Your task to perform on an android device: delete the emails in spam in the gmail app Image 0: 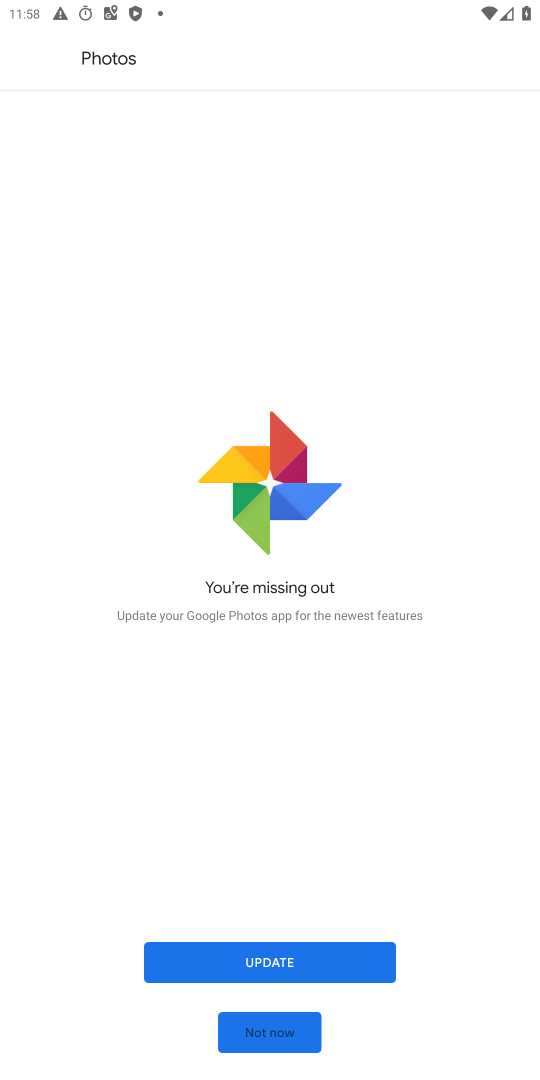
Step 0: press back button
Your task to perform on an android device: delete the emails in spam in the gmail app Image 1: 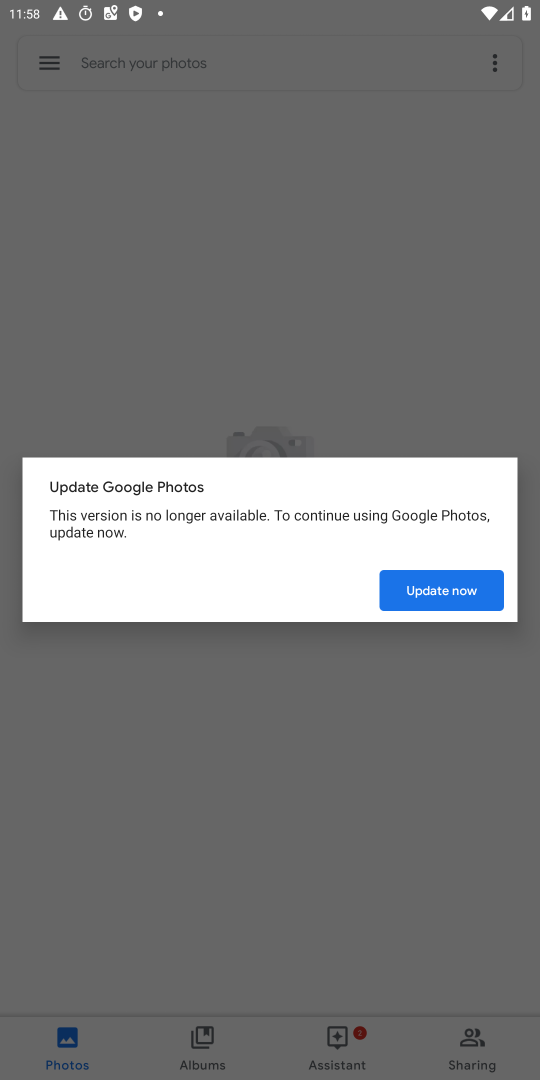
Step 1: press home button
Your task to perform on an android device: delete the emails in spam in the gmail app Image 2: 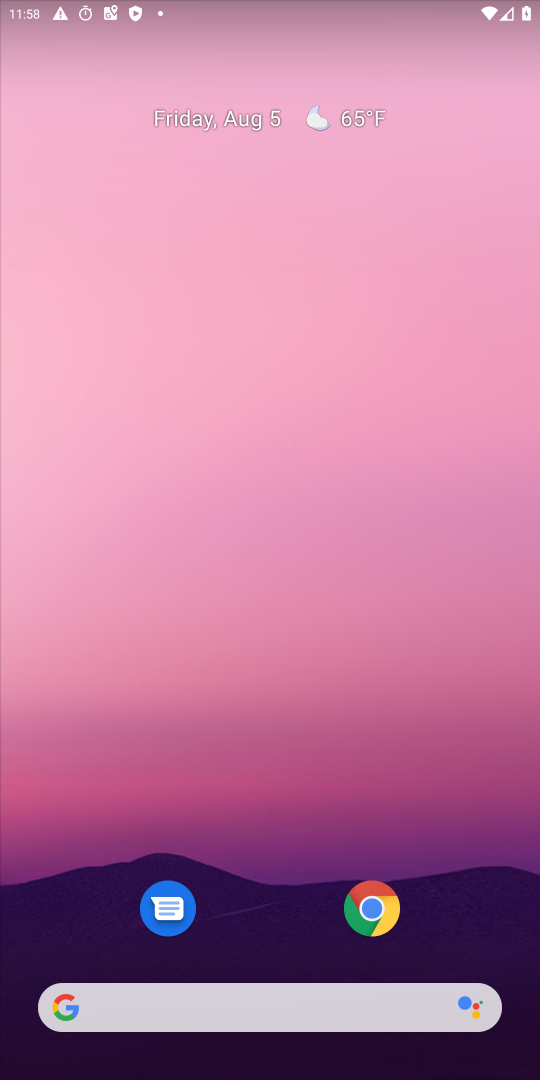
Step 2: drag from (34, 1063) to (188, 639)
Your task to perform on an android device: delete the emails in spam in the gmail app Image 3: 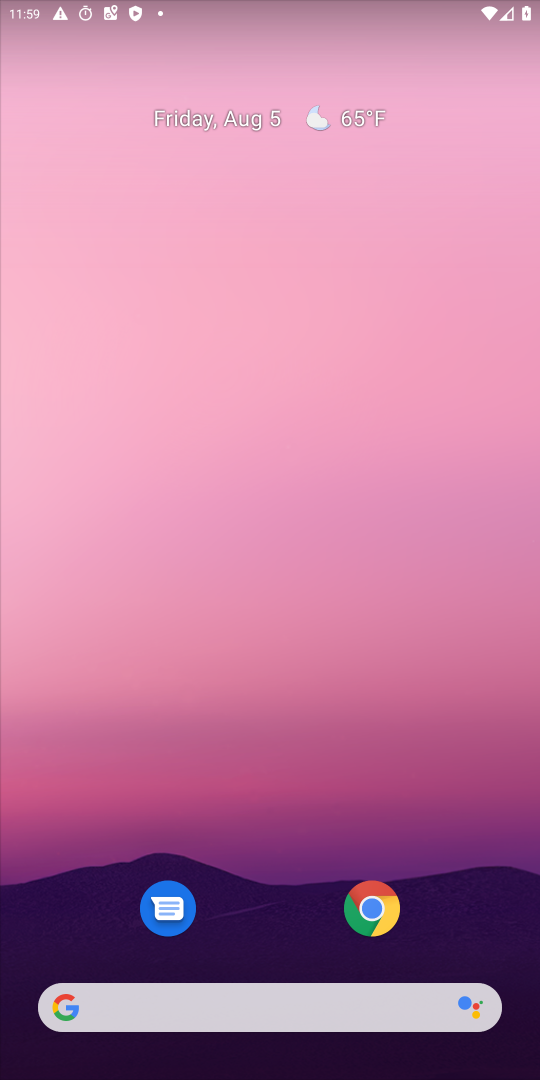
Step 3: drag from (20, 999) to (174, 595)
Your task to perform on an android device: delete the emails in spam in the gmail app Image 4: 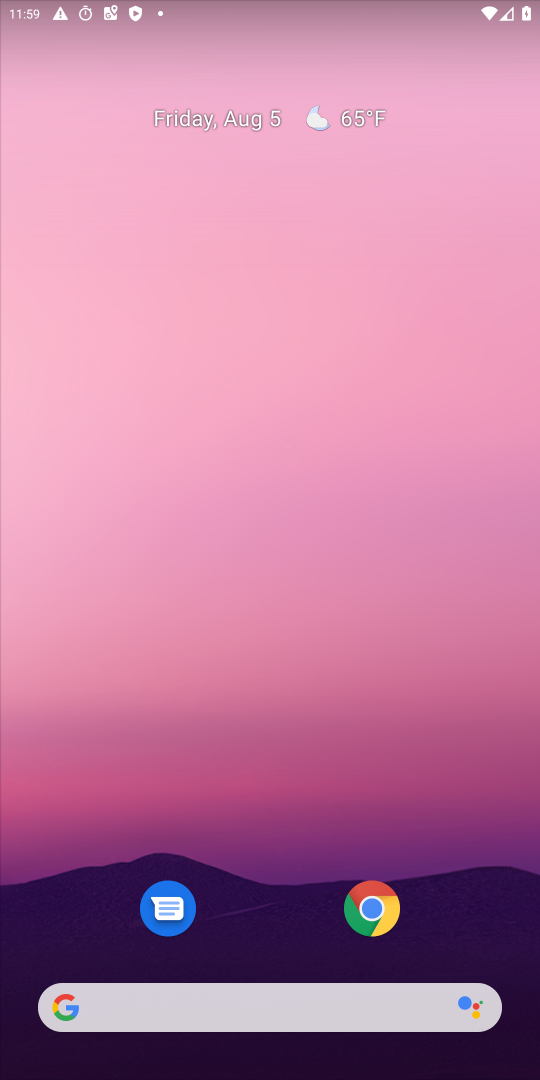
Step 4: drag from (36, 954) to (179, 415)
Your task to perform on an android device: delete the emails in spam in the gmail app Image 5: 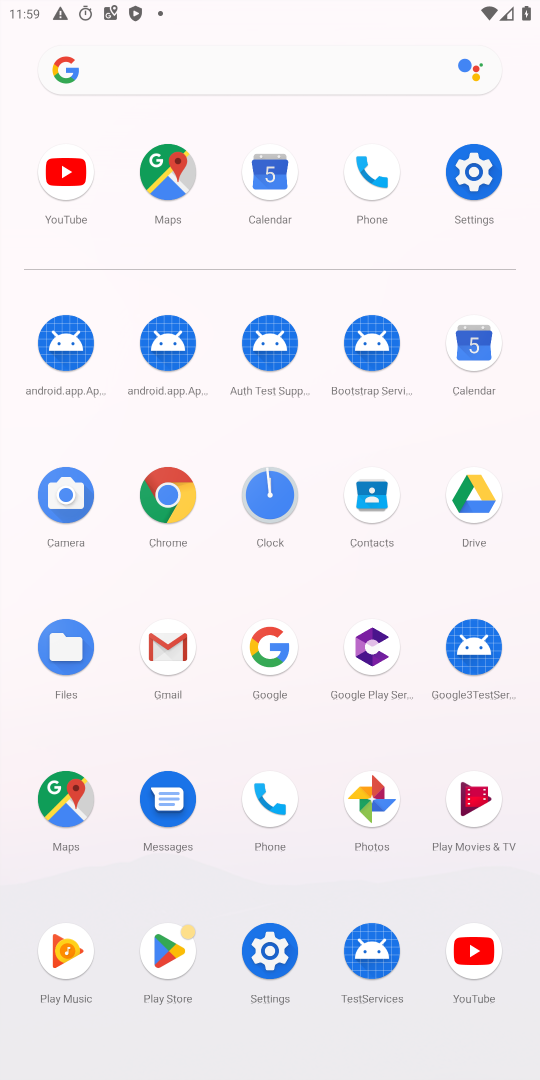
Step 5: click (163, 634)
Your task to perform on an android device: delete the emails in spam in the gmail app Image 6: 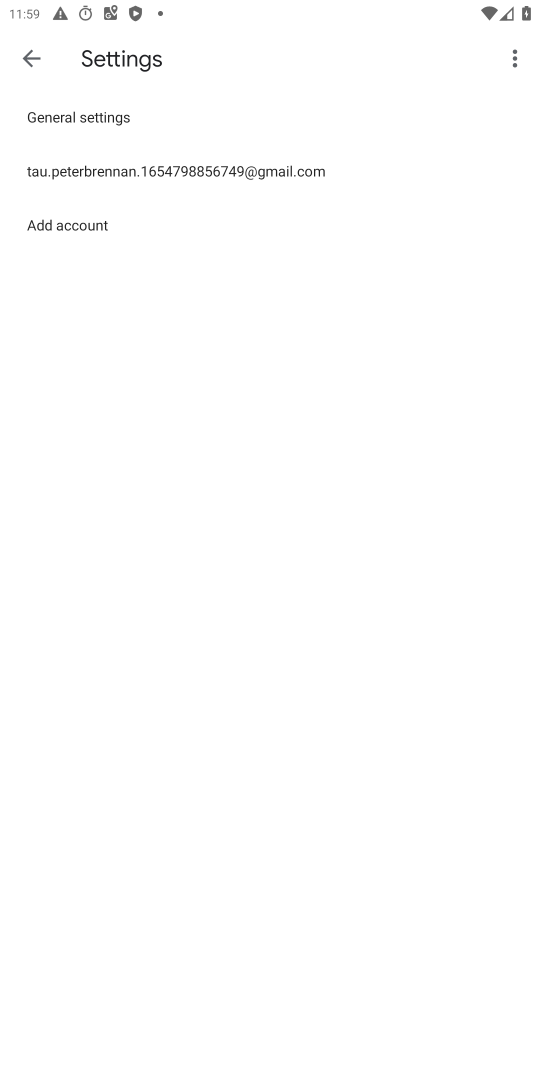
Step 6: click (28, 71)
Your task to perform on an android device: delete the emails in spam in the gmail app Image 7: 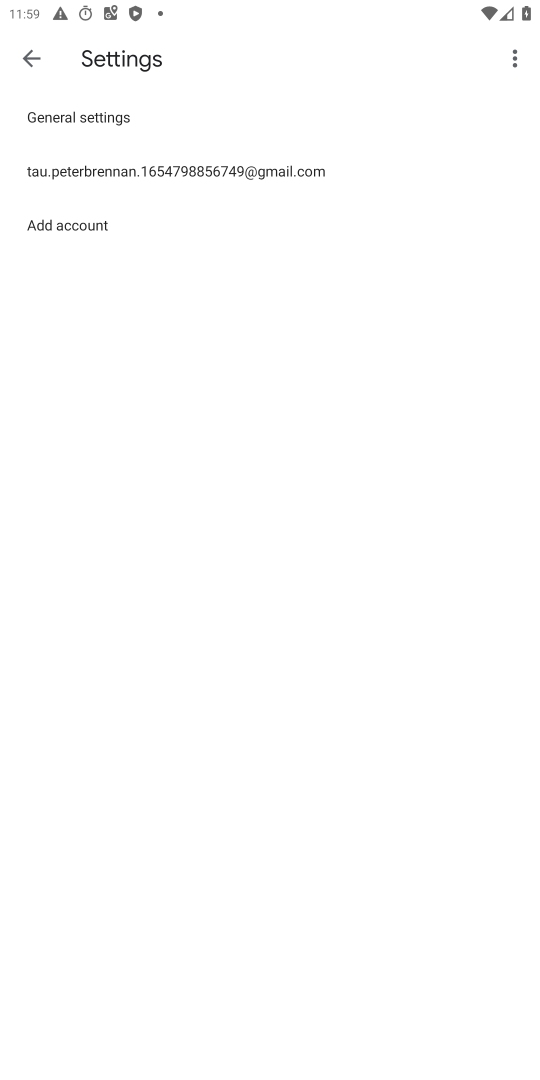
Step 7: click (29, 55)
Your task to perform on an android device: delete the emails in spam in the gmail app Image 8: 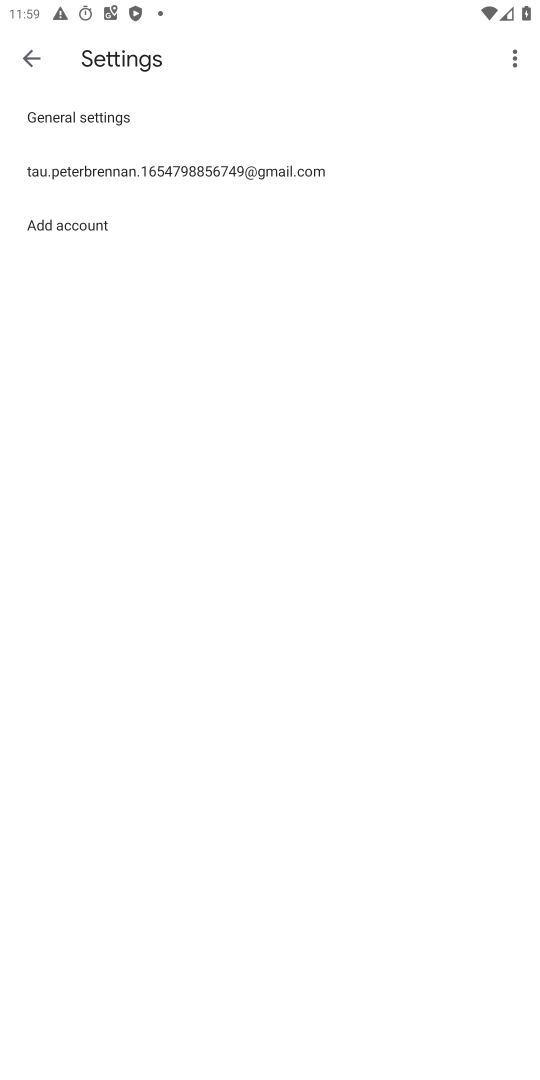
Step 8: click (17, 59)
Your task to perform on an android device: delete the emails in spam in the gmail app Image 9: 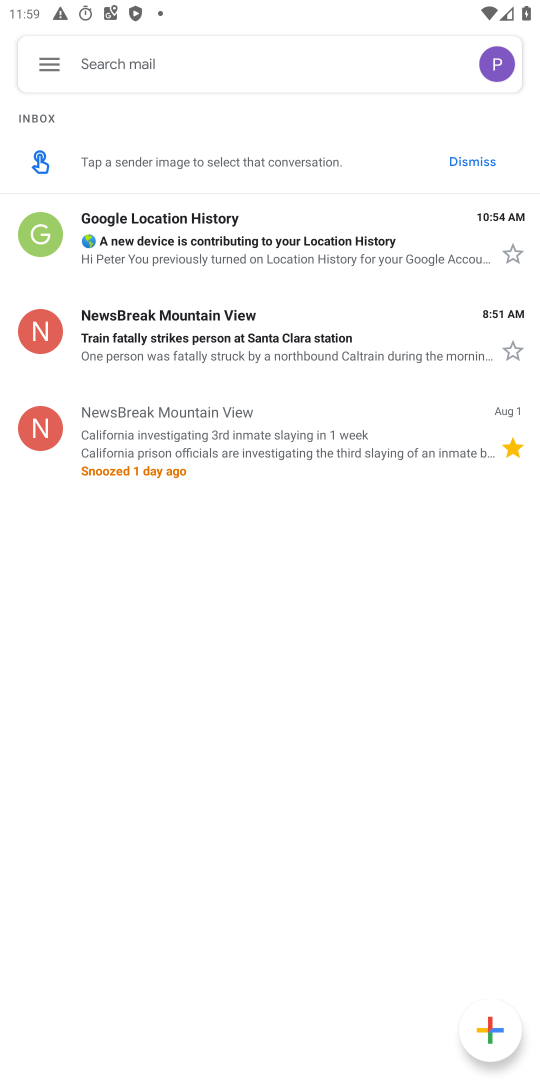
Step 9: click (28, 52)
Your task to perform on an android device: delete the emails in spam in the gmail app Image 10: 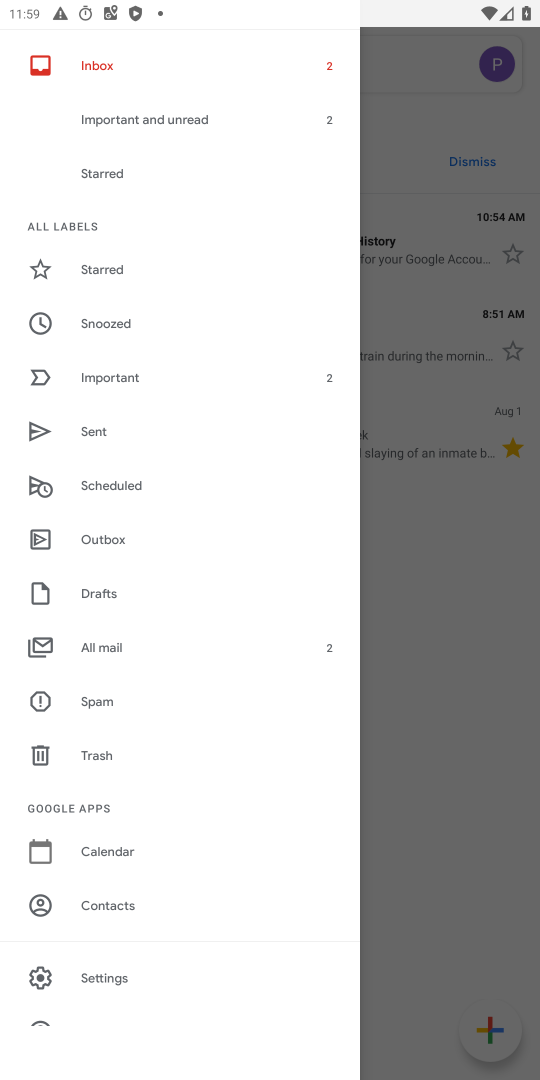
Step 10: click (103, 699)
Your task to perform on an android device: delete the emails in spam in the gmail app Image 11: 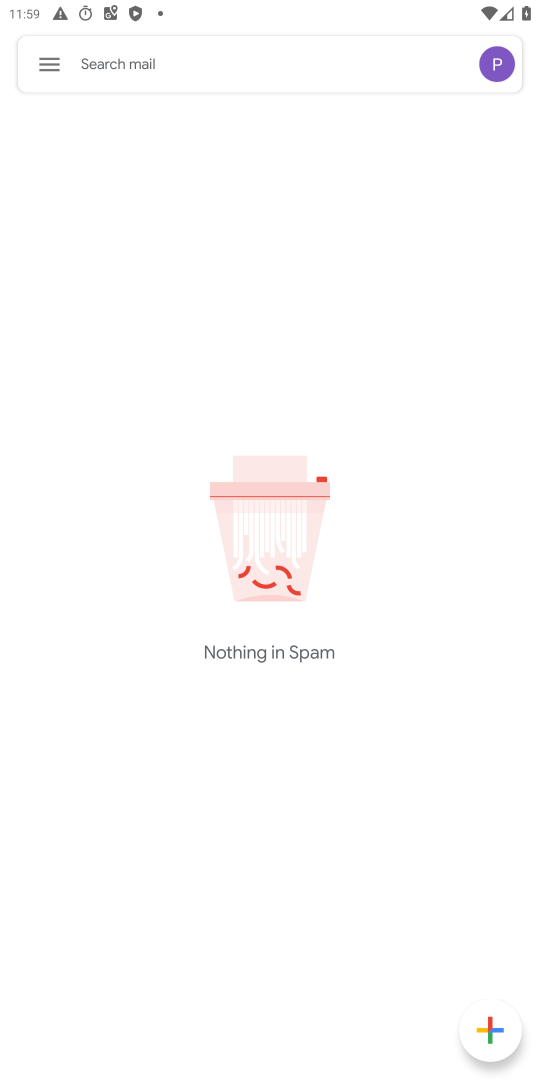
Step 11: task complete